Your task to perform on an android device: open wifi settings Image 0: 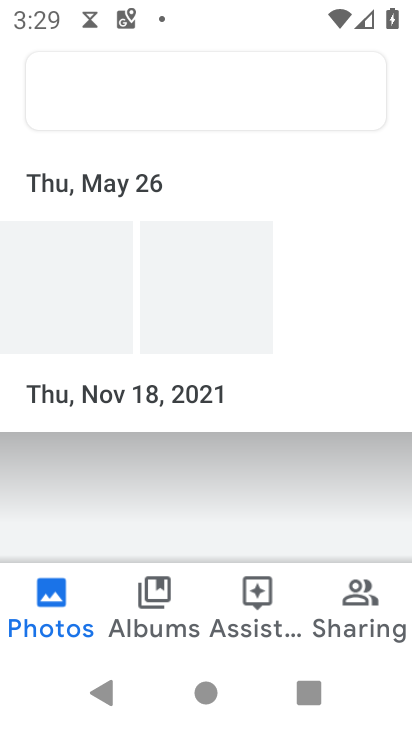
Step 0: press home button
Your task to perform on an android device: open wifi settings Image 1: 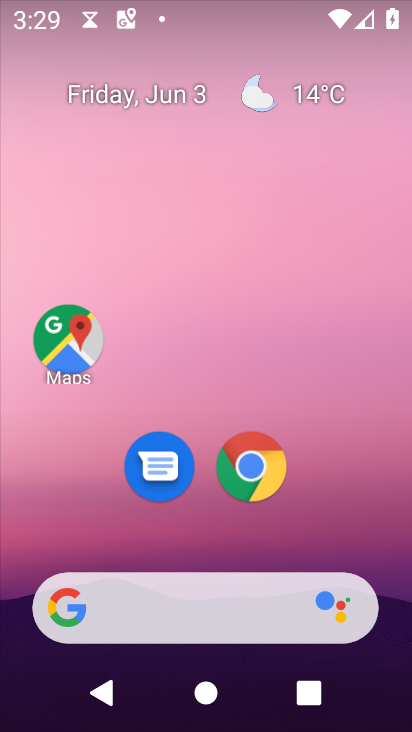
Step 1: drag from (331, 493) to (275, 66)
Your task to perform on an android device: open wifi settings Image 2: 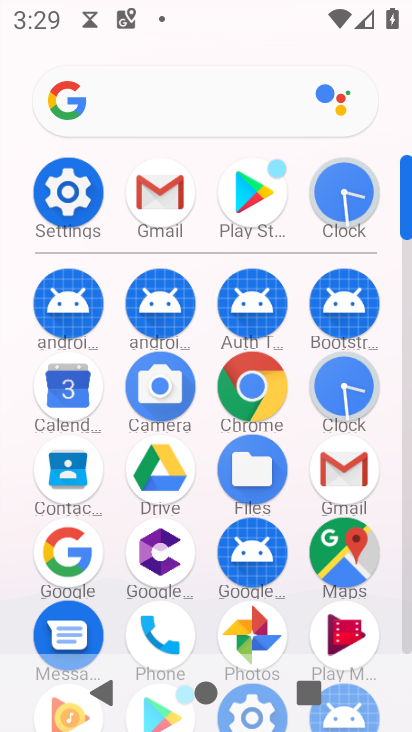
Step 2: click (76, 216)
Your task to perform on an android device: open wifi settings Image 3: 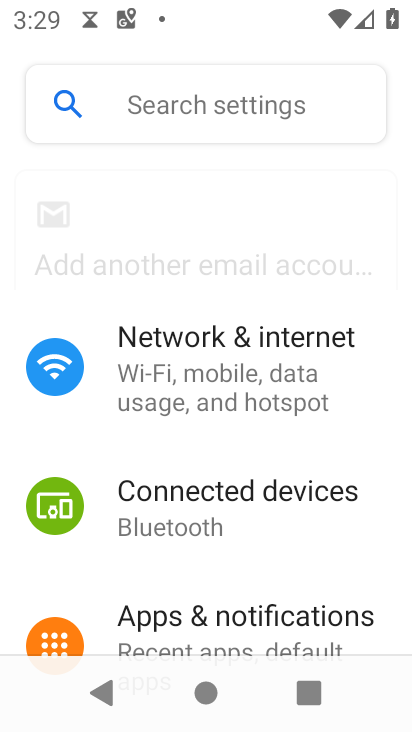
Step 3: click (150, 236)
Your task to perform on an android device: open wifi settings Image 4: 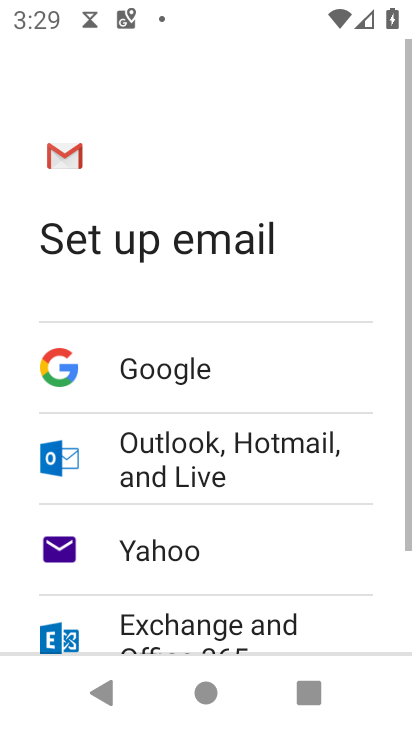
Step 4: press back button
Your task to perform on an android device: open wifi settings Image 5: 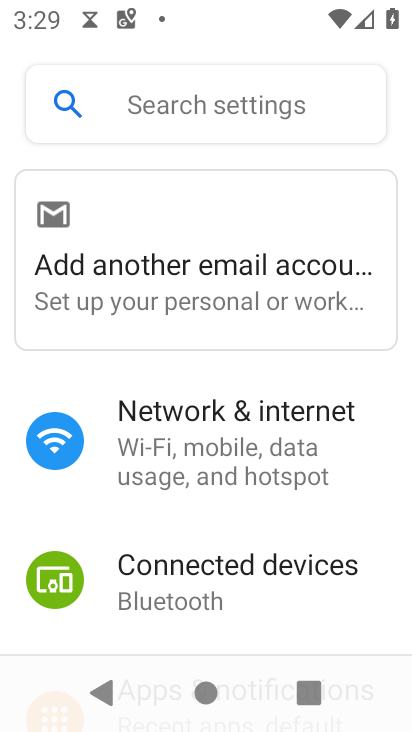
Step 5: click (276, 283)
Your task to perform on an android device: open wifi settings Image 6: 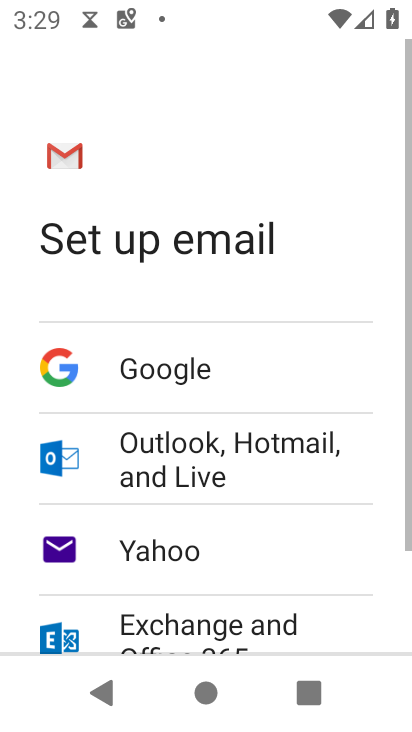
Step 6: press back button
Your task to perform on an android device: open wifi settings Image 7: 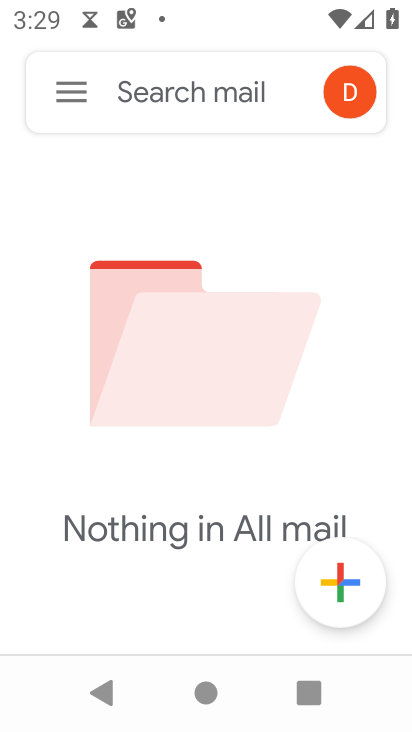
Step 7: press back button
Your task to perform on an android device: open wifi settings Image 8: 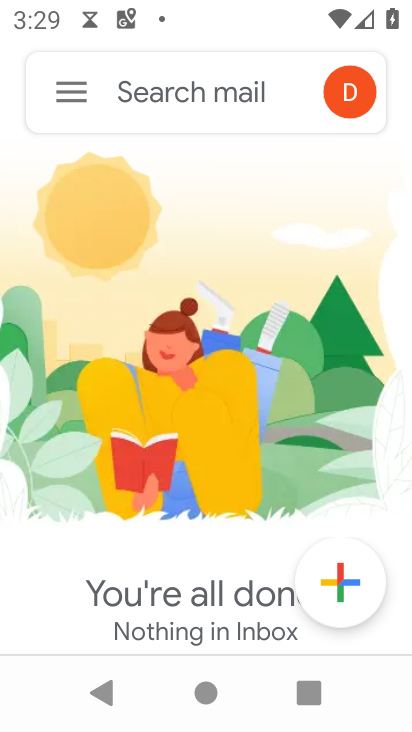
Step 8: press back button
Your task to perform on an android device: open wifi settings Image 9: 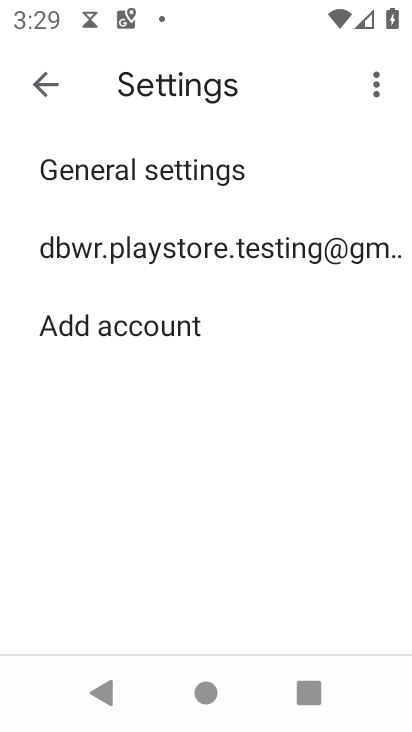
Step 9: press back button
Your task to perform on an android device: open wifi settings Image 10: 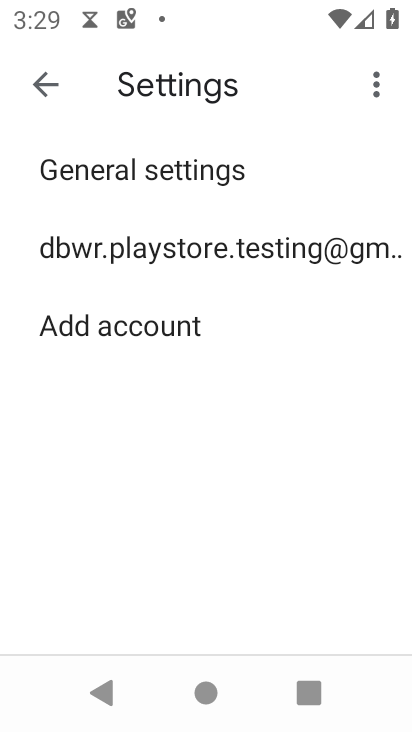
Step 10: press back button
Your task to perform on an android device: open wifi settings Image 11: 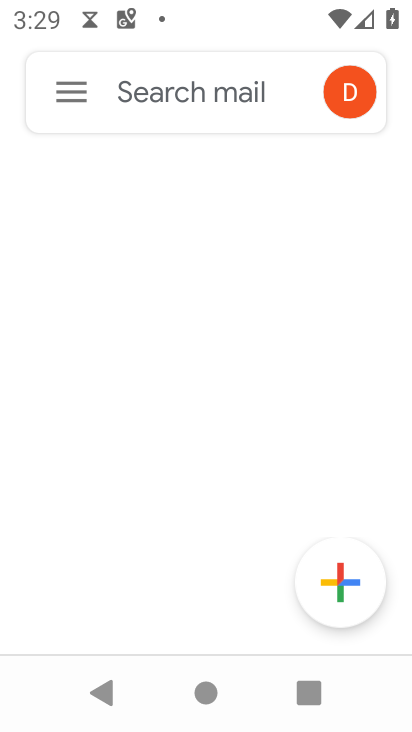
Step 11: press back button
Your task to perform on an android device: open wifi settings Image 12: 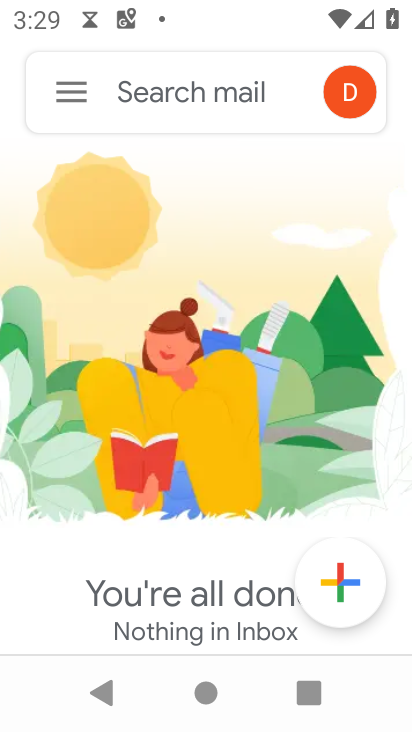
Step 12: press home button
Your task to perform on an android device: open wifi settings Image 13: 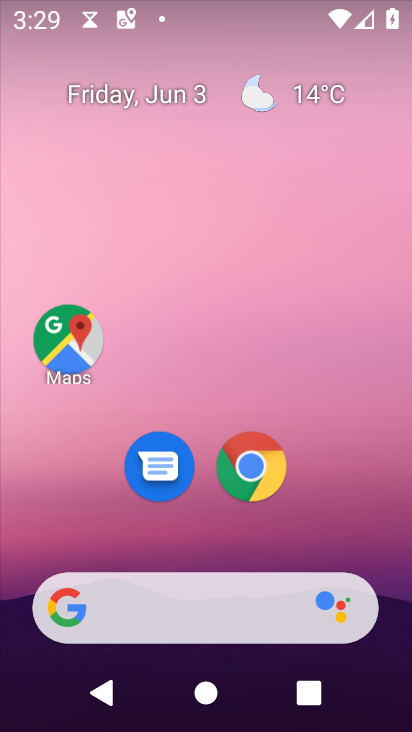
Step 13: drag from (354, 525) to (312, 110)
Your task to perform on an android device: open wifi settings Image 14: 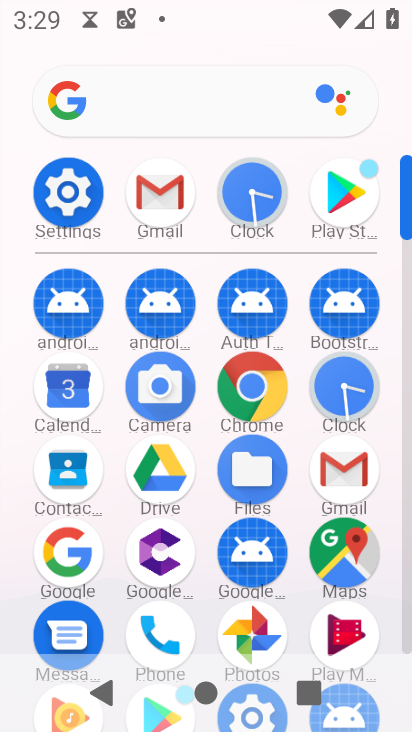
Step 14: click (80, 198)
Your task to perform on an android device: open wifi settings Image 15: 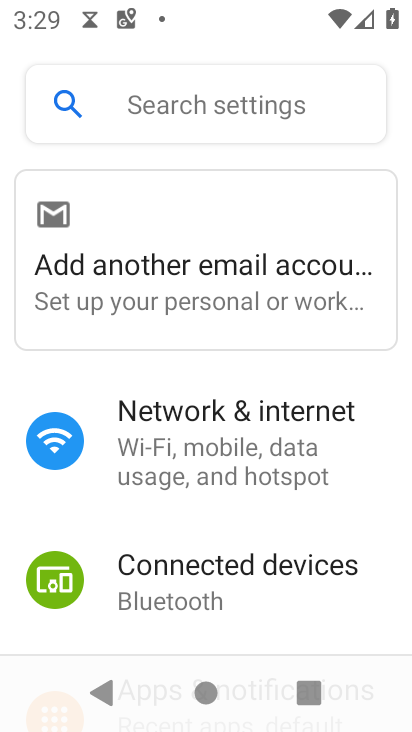
Step 15: click (139, 430)
Your task to perform on an android device: open wifi settings Image 16: 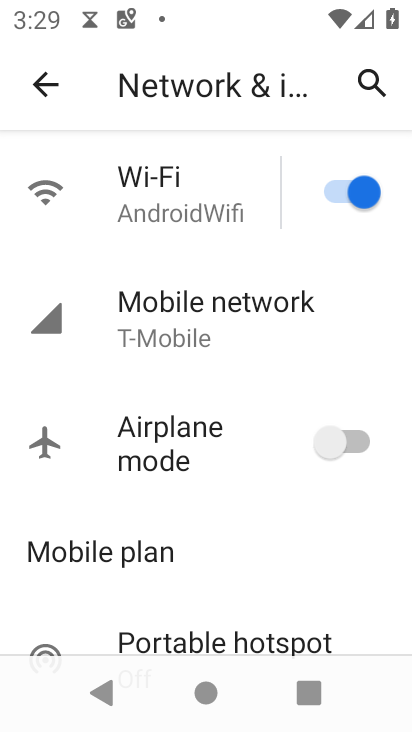
Step 16: click (114, 208)
Your task to perform on an android device: open wifi settings Image 17: 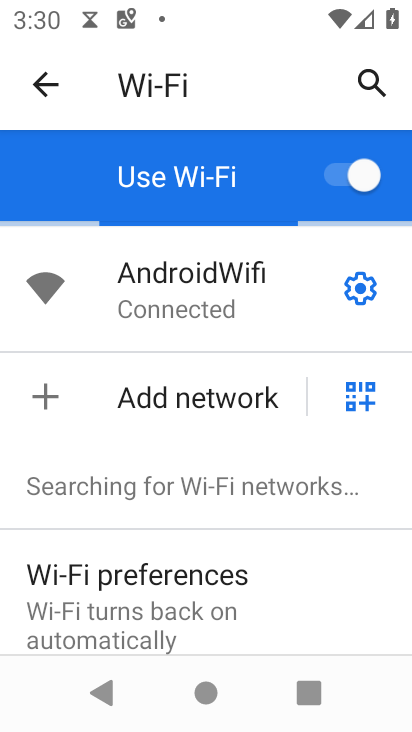
Step 17: task complete